Your task to perform on an android device: turn off location history Image 0: 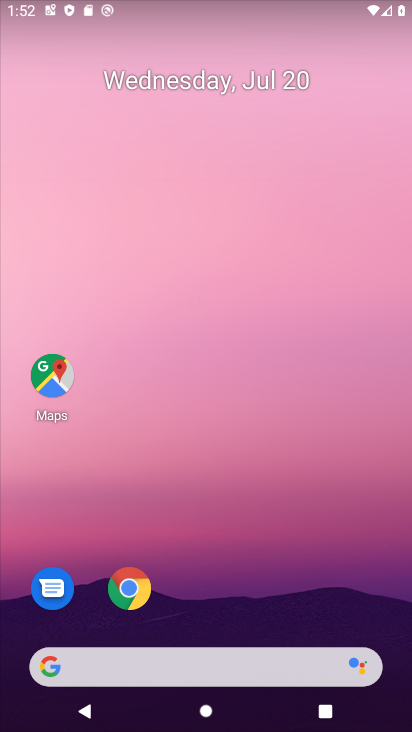
Step 0: drag from (382, 616) to (252, 63)
Your task to perform on an android device: turn off location history Image 1: 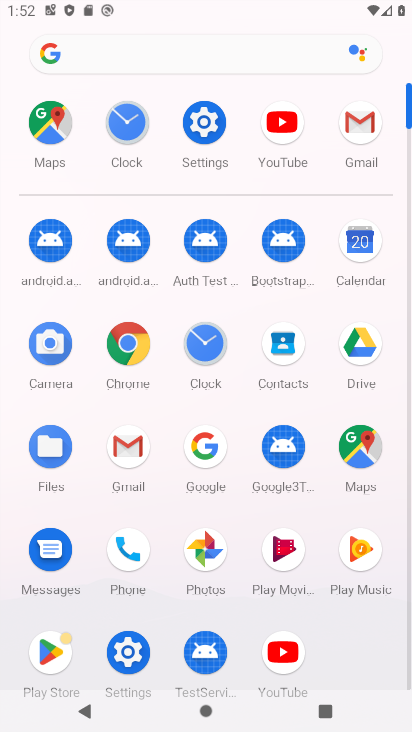
Step 1: click (116, 665)
Your task to perform on an android device: turn off location history Image 2: 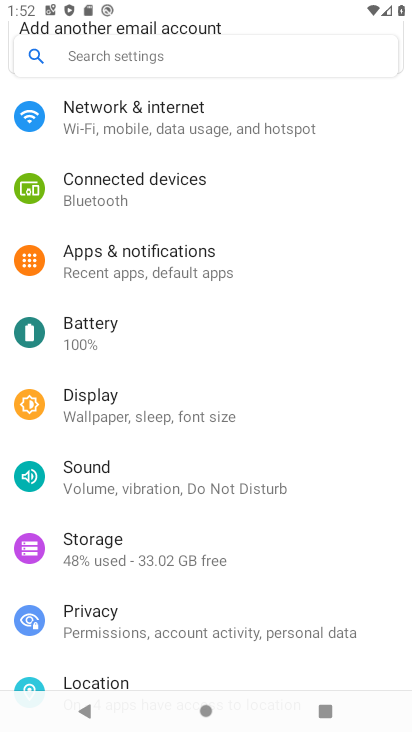
Step 2: click (111, 678)
Your task to perform on an android device: turn off location history Image 3: 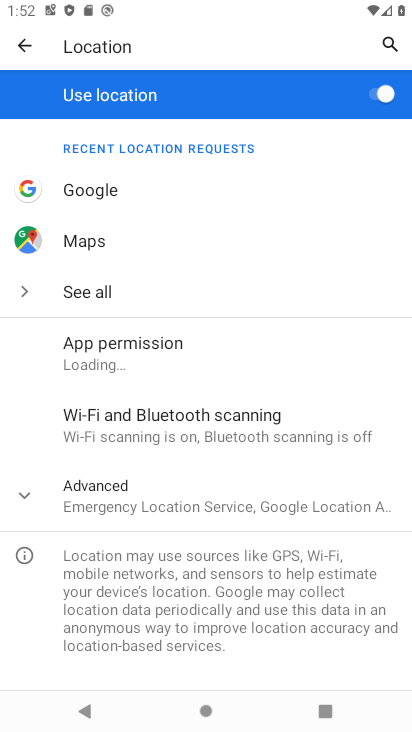
Step 3: click (132, 489)
Your task to perform on an android device: turn off location history Image 4: 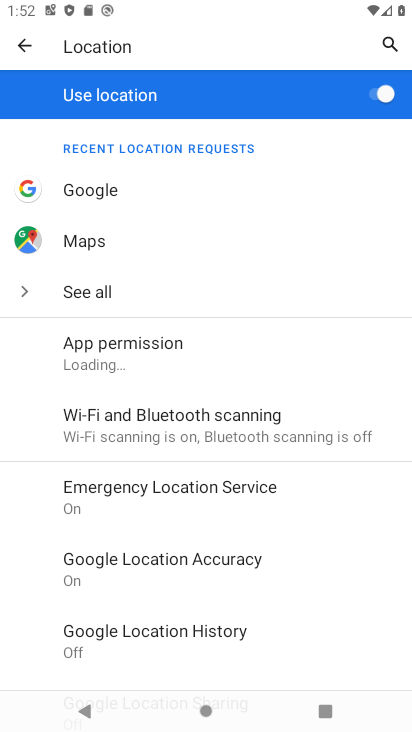
Step 4: click (178, 630)
Your task to perform on an android device: turn off location history Image 5: 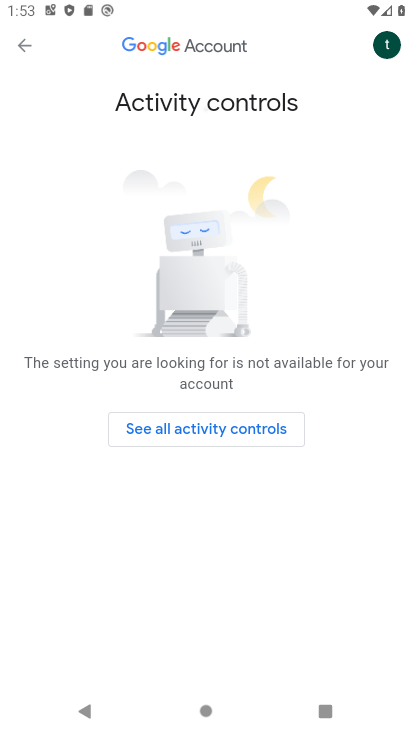
Step 5: task complete